Your task to perform on an android device: change the clock style Image 0: 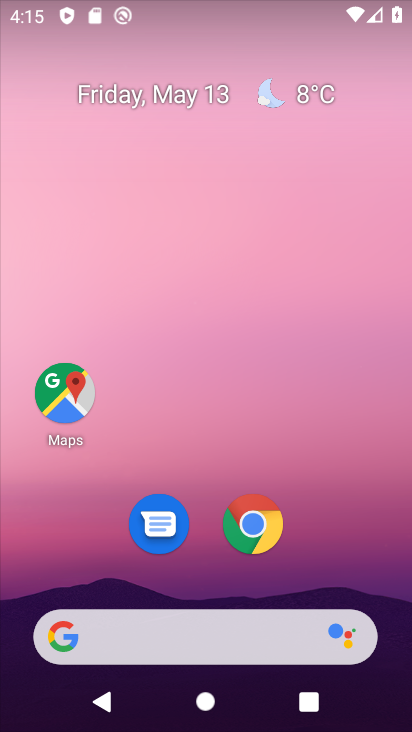
Step 0: drag from (320, 530) to (244, 23)
Your task to perform on an android device: change the clock style Image 1: 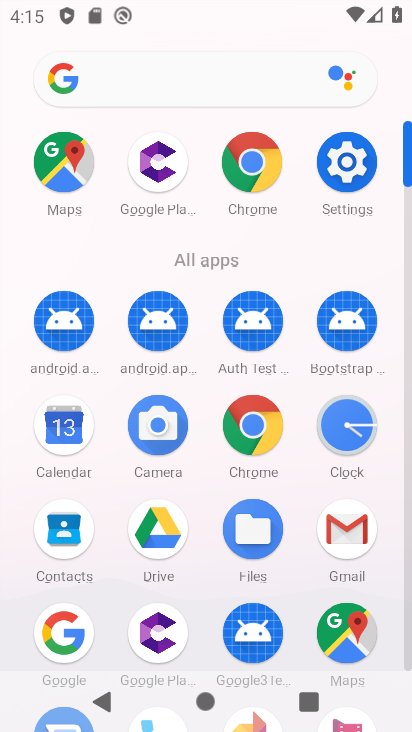
Step 1: click (354, 422)
Your task to perform on an android device: change the clock style Image 2: 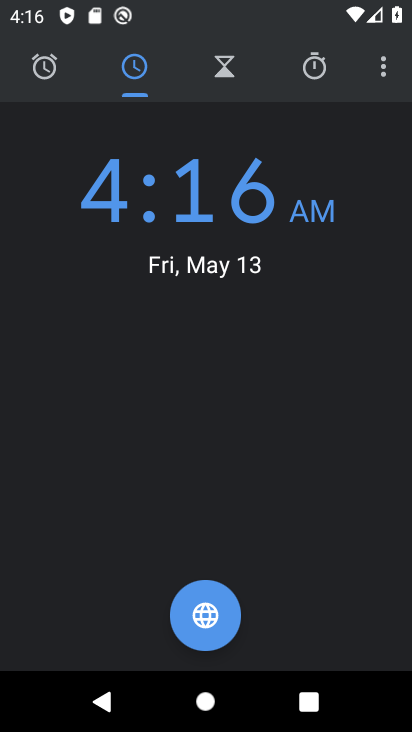
Step 2: click (377, 75)
Your task to perform on an android device: change the clock style Image 3: 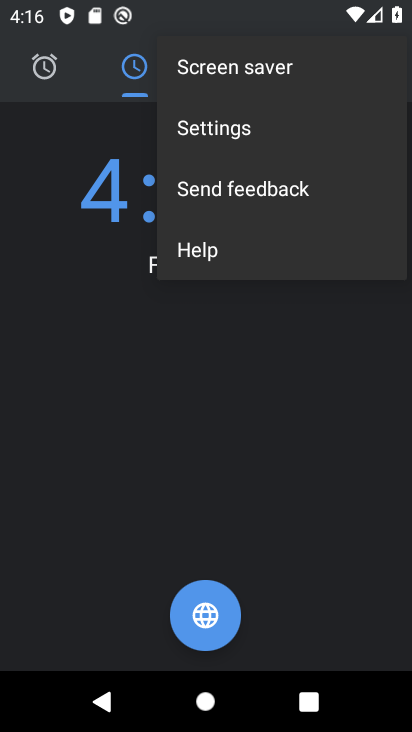
Step 3: click (301, 135)
Your task to perform on an android device: change the clock style Image 4: 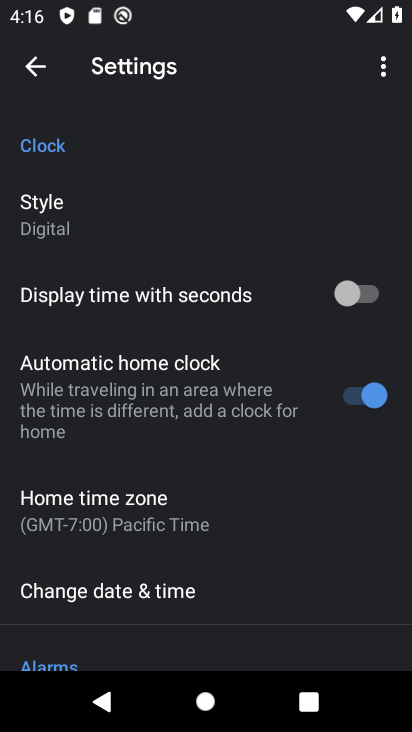
Step 4: click (81, 203)
Your task to perform on an android device: change the clock style Image 5: 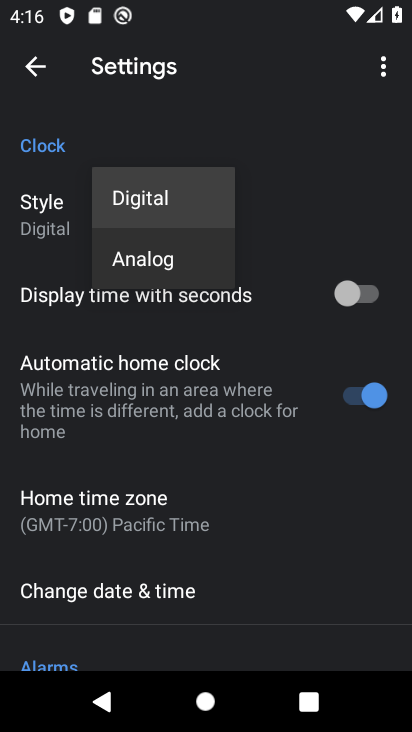
Step 5: click (150, 253)
Your task to perform on an android device: change the clock style Image 6: 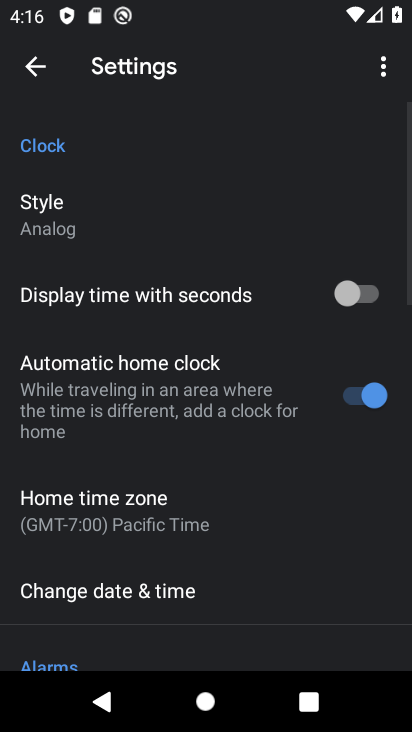
Step 6: click (40, 69)
Your task to perform on an android device: change the clock style Image 7: 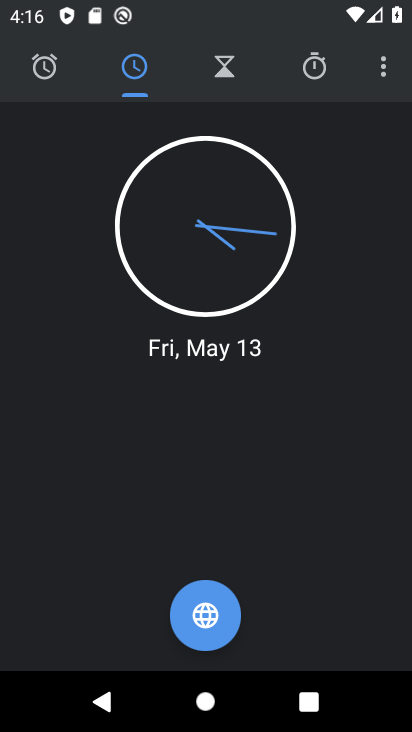
Step 7: task complete